Your task to perform on an android device: Do I have any events tomorrow? Image 0: 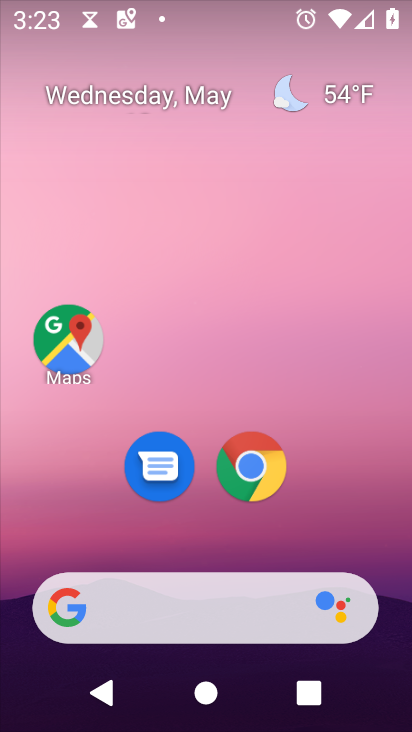
Step 0: drag from (338, 531) to (243, 59)
Your task to perform on an android device: Do I have any events tomorrow? Image 1: 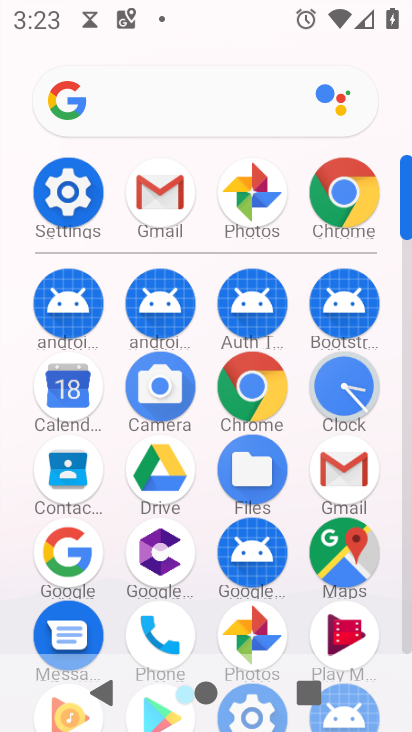
Step 1: click (74, 404)
Your task to perform on an android device: Do I have any events tomorrow? Image 2: 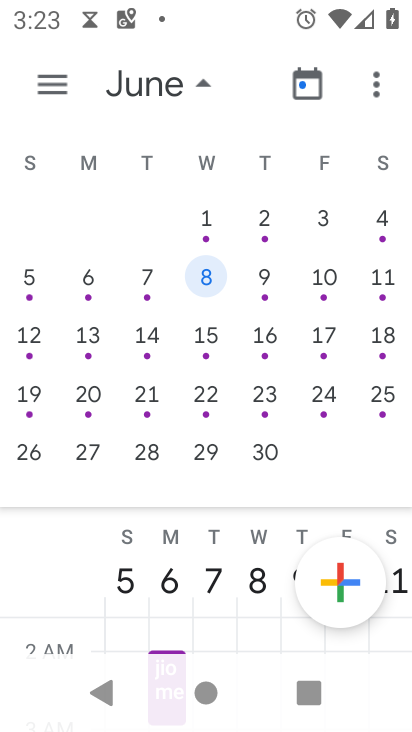
Step 2: click (40, 93)
Your task to perform on an android device: Do I have any events tomorrow? Image 3: 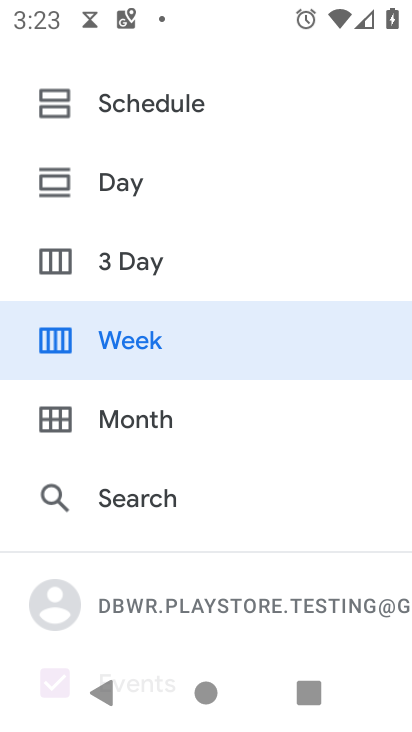
Step 3: click (103, 100)
Your task to perform on an android device: Do I have any events tomorrow? Image 4: 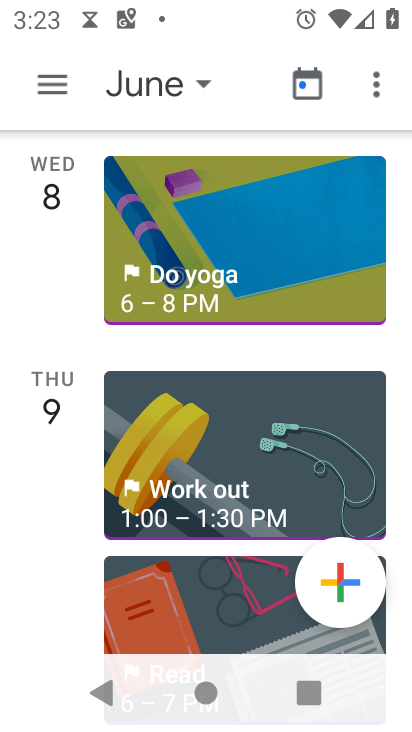
Step 4: click (127, 90)
Your task to perform on an android device: Do I have any events tomorrow? Image 5: 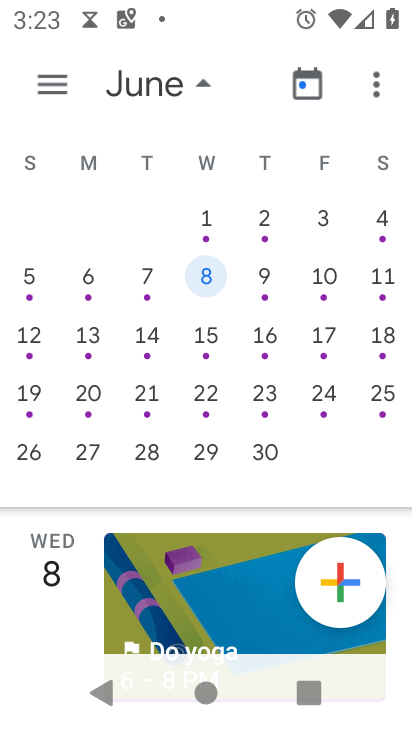
Step 5: drag from (117, 252) to (404, 250)
Your task to perform on an android device: Do I have any events tomorrow? Image 6: 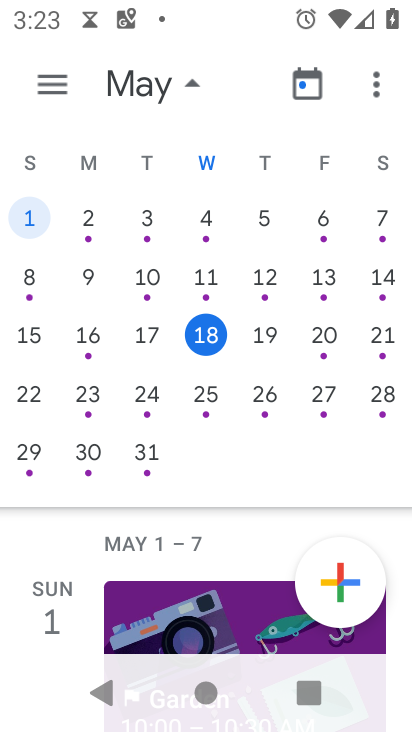
Step 6: click (277, 327)
Your task to perform on an android device: Do I have any events tomorrow? Image 7: 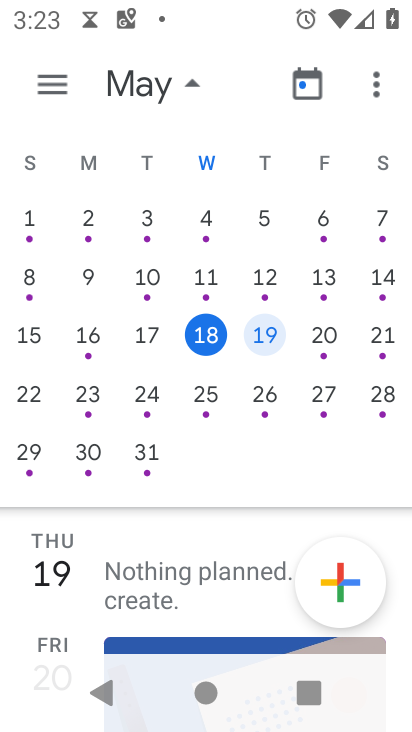
Step 7: click (188, 78)
Your task to perform on an android device: Do I have any events tomorrow? Image 8: 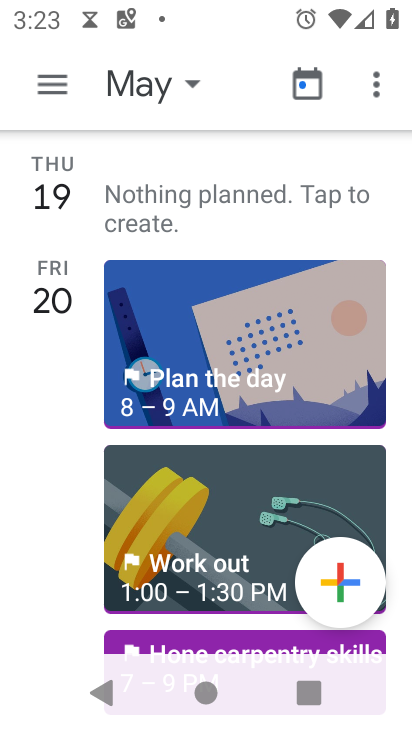
Step 8: task complete